Your task to perform on an android device: Go to ESPN.com Image 0: 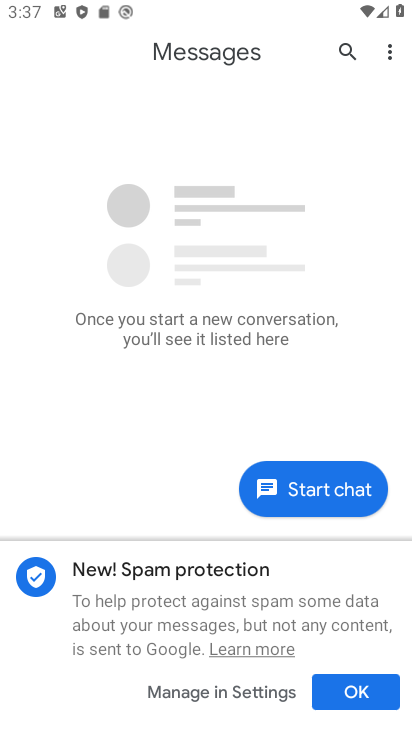
Step 0: press home button
Your task to perform on an android device: Go to ESPN.com Image 1: 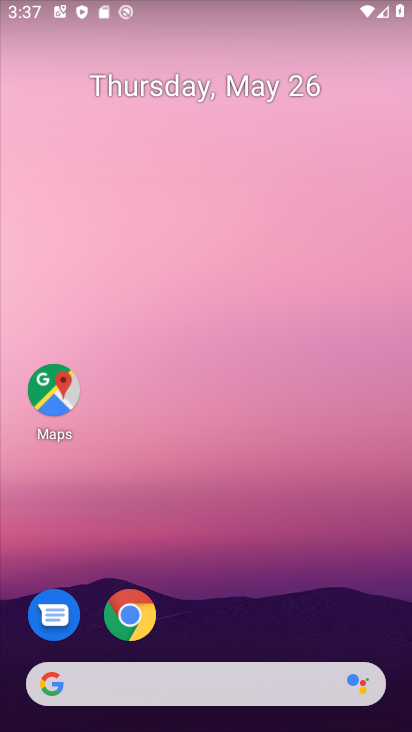
Step 1: click (140, 613)
Your task to perform on an android device: Go to ESPN.com Image 2: 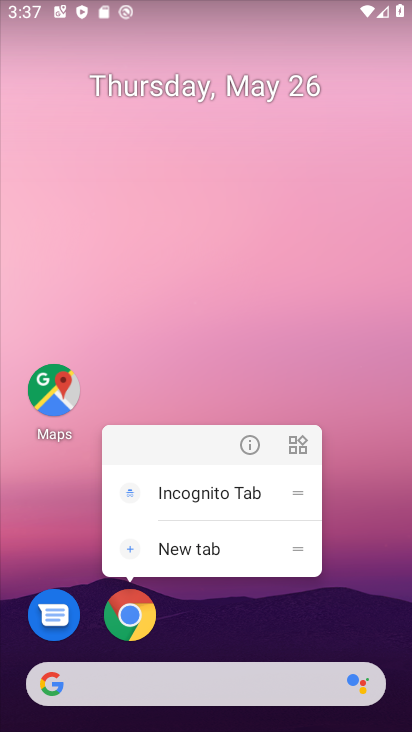
Step 2: click (153, 609)
Your task to perform on an android device: Go to ESPN.com Image 3: 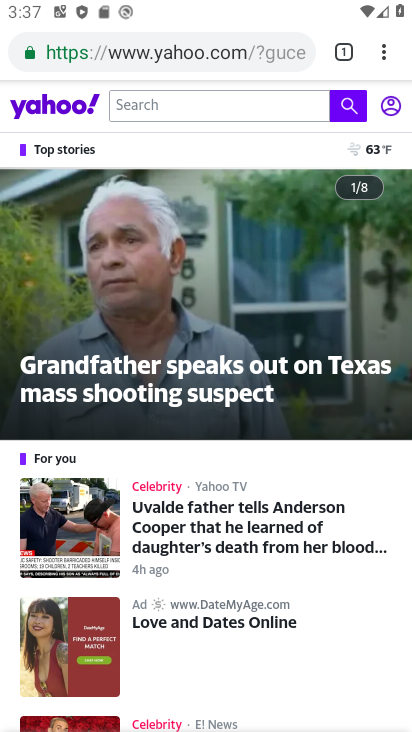
Step 3: click (346, 30)
Your task to perform on an android device: Go to ESPN.com Image 4: 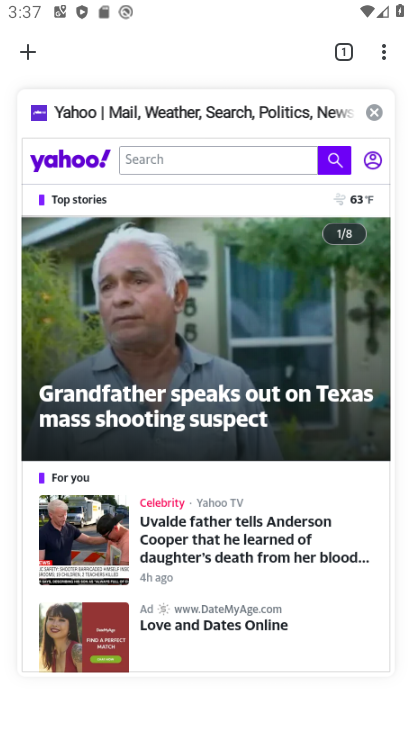
Step 4: click (373, 109)
Your task to perform on an android device: Go to ESPN.com Image 5: 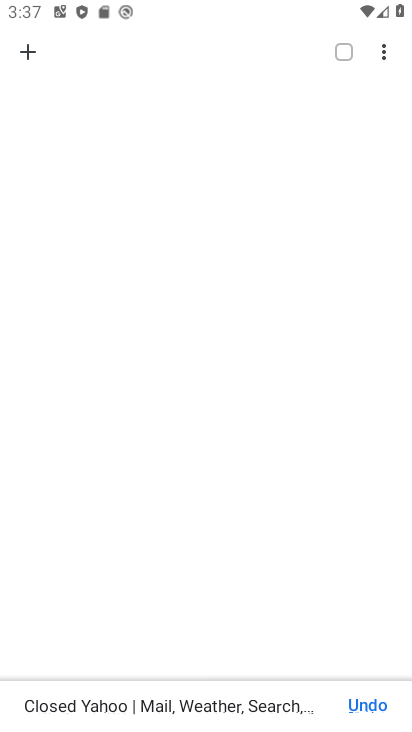
Step 5: click (21, 50)
Your task to perform on an android device: Go to ESPN.com Image 6: 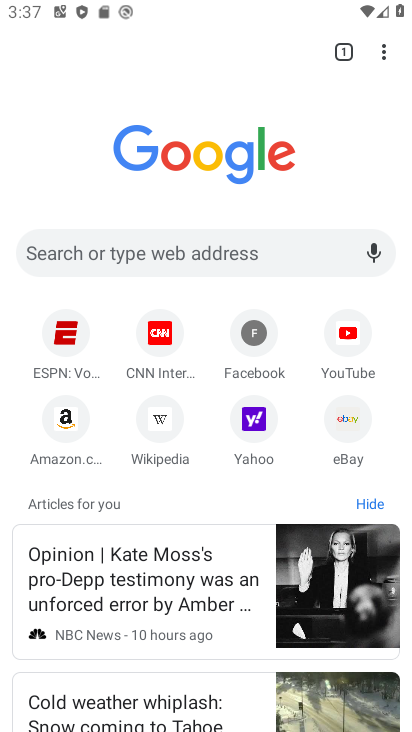
Step 6: click (64, 328)
Your task to perform on an android device: Go to ESPN.com Image 7: 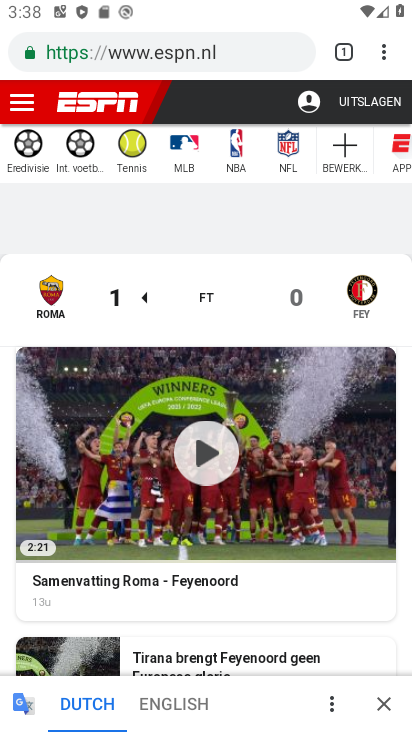
Step 7: task complete